Your task to perform on an android device: manage bookmarks in the chrome app Image 0: 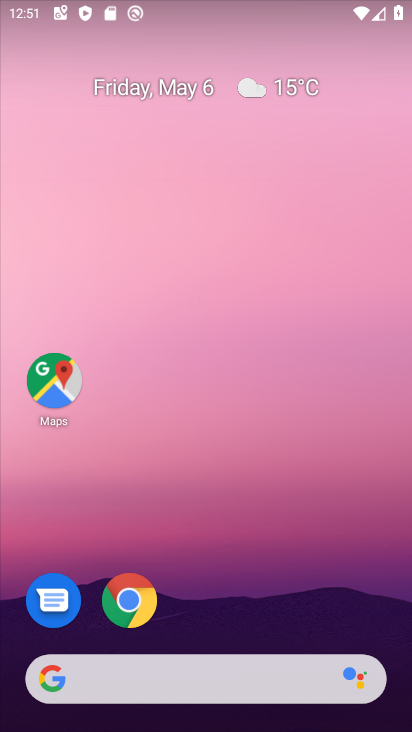
Step 0: drag from (306, 622) to (354, 107)
Your task to perform on an android device: manage bookmarks in the chrome app Image 1: 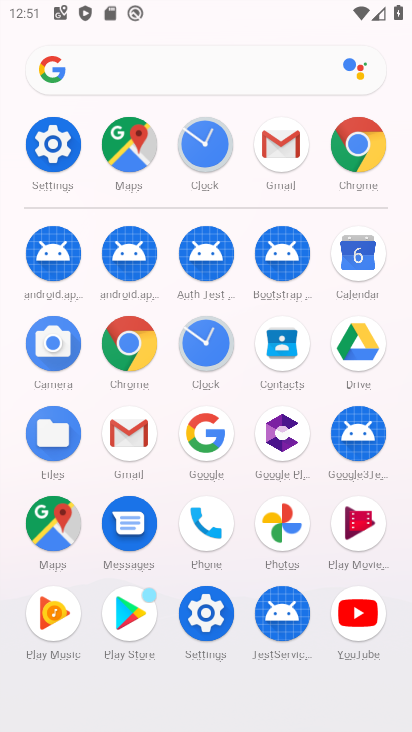
Step 1: click (139, 348)
Your task to perform on an android device: manage bookmarks in the chrome app Image 2: 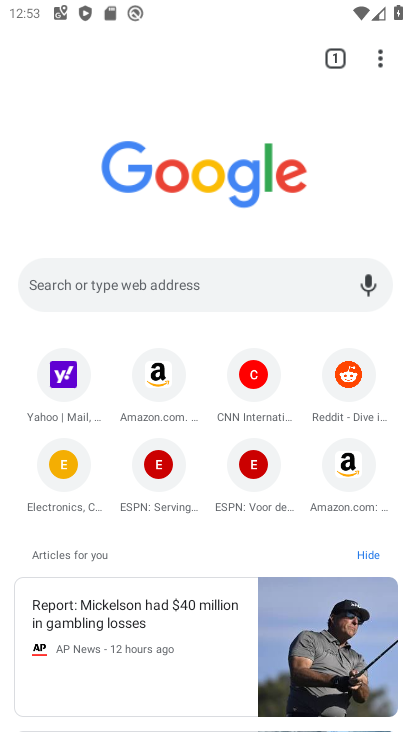
Step 2: task complete